Your task to perform on an android device: Open display settings Image 0: 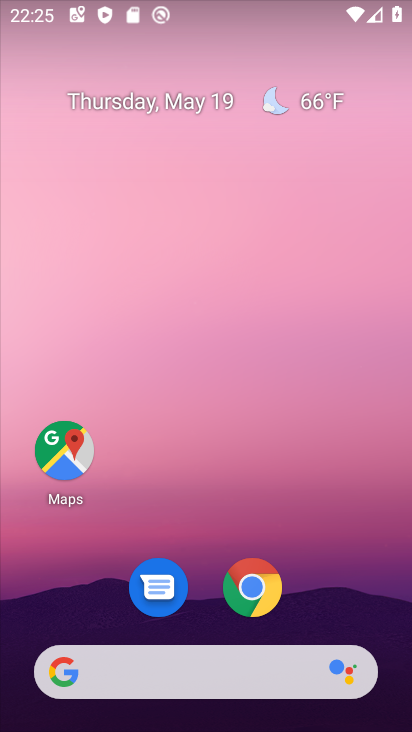
Step 0: press home button
Your task to perform on an android device: Open display settings Image 1: 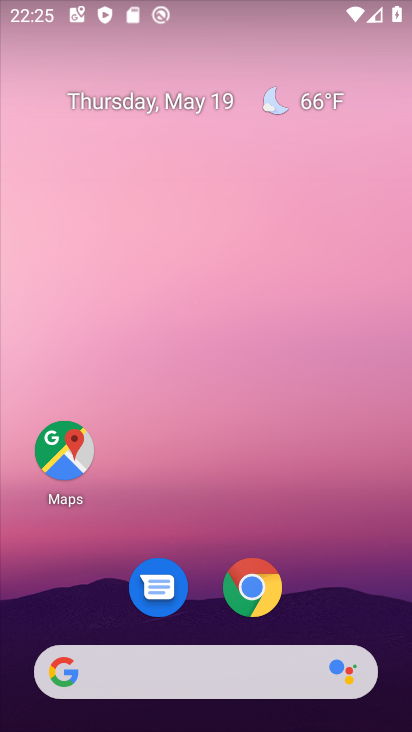
Step 1: drag from (255, 688) to (229, 43)
Your task to perform on an android device: Open display settings Image 2: 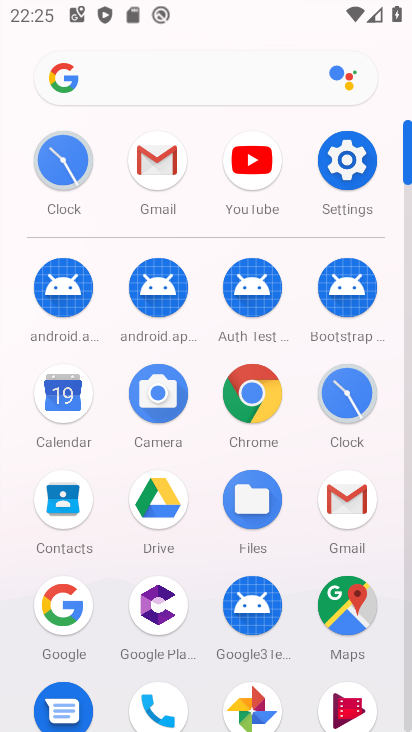
Step 2: click (354, 162)
Your task to perform on an android device: Open display settings Image 3: 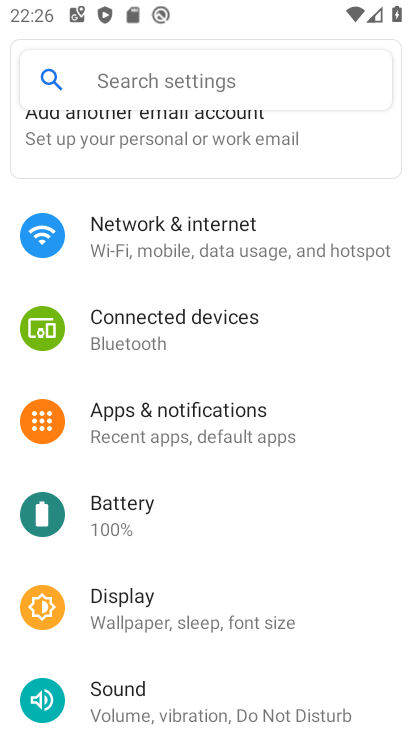
Step 3: click (160, 588)
Your task to perform on an android device: Open display settings Image 4: 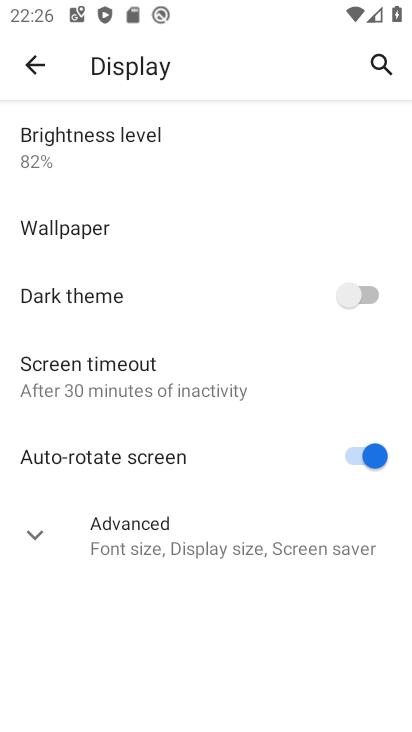
Step 4: click (110, 529)
Your task to perform on an android device: Open display settings Image 5: 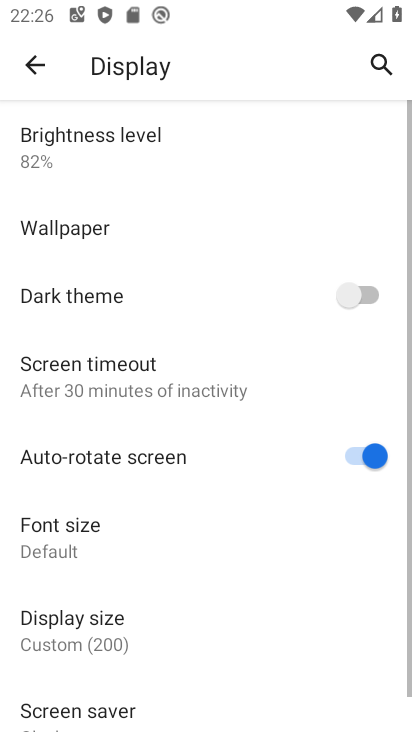
Step 5: task complete